Your task to perform on an android device: What's the weather today? Image 0: 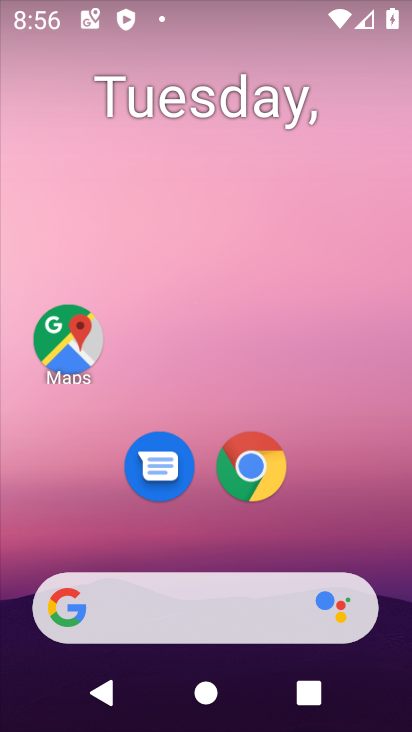
Step 0: drag from (367, 503) to (335, 119)
Your task to perform on an android device: What's the weather today? Image 1: 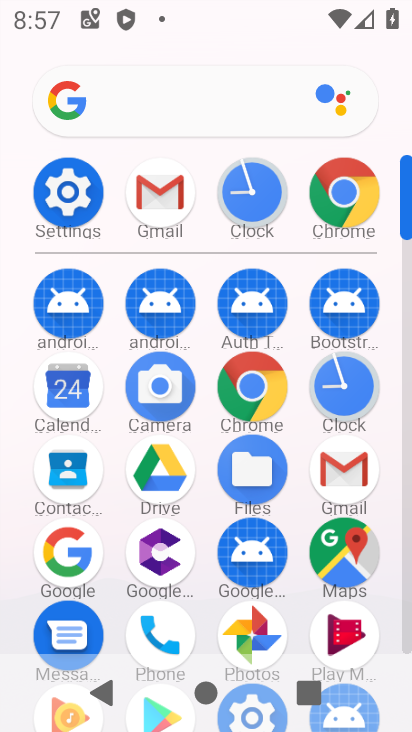
Step 1: click (242, 107)
Your task to perform on an android device: What's the weather today? Image 2: 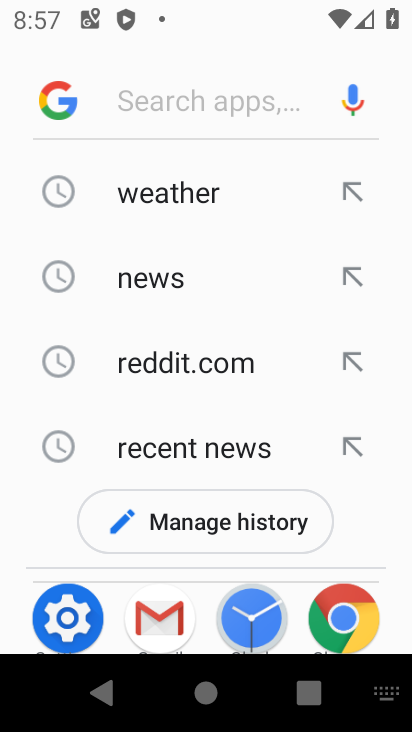
Step 2: click (198, 178)
Your task to perform on an android device: What's the weather today? Image 3: 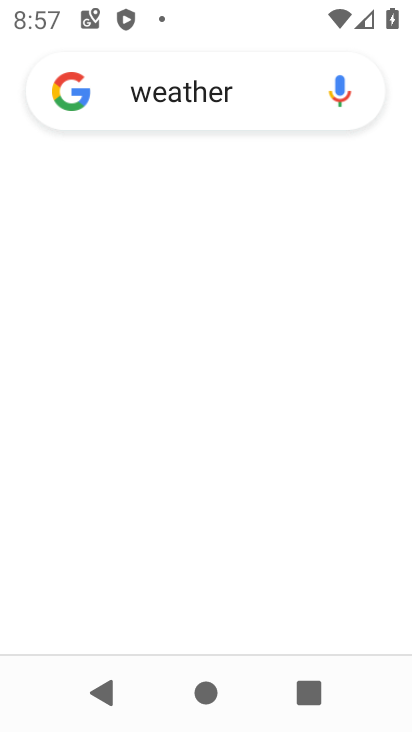
Step 3: task complete